Your task to perform on an android device: Toggle the flashlight Image 0: 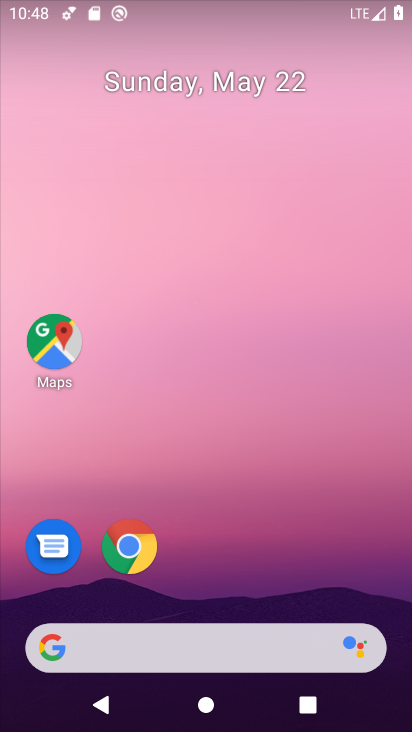
Step 0: drag from (247, 678) to (254, 54)
Your task to perform on an android device: Toggle the flashlight Image 1: 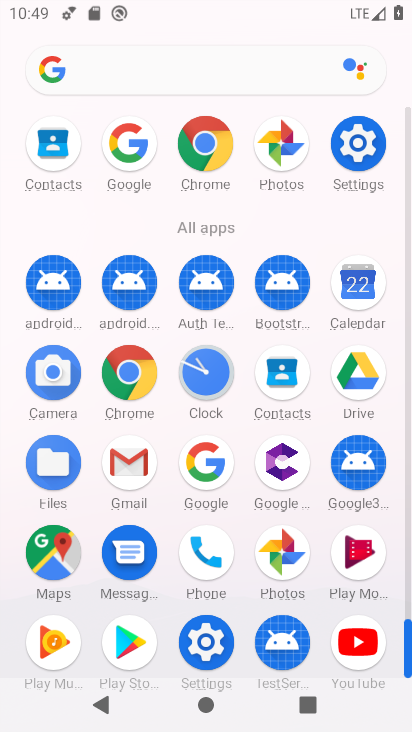
Step 1: task complete